Your task to perform on an android device: turn on airplane mode Image 0: 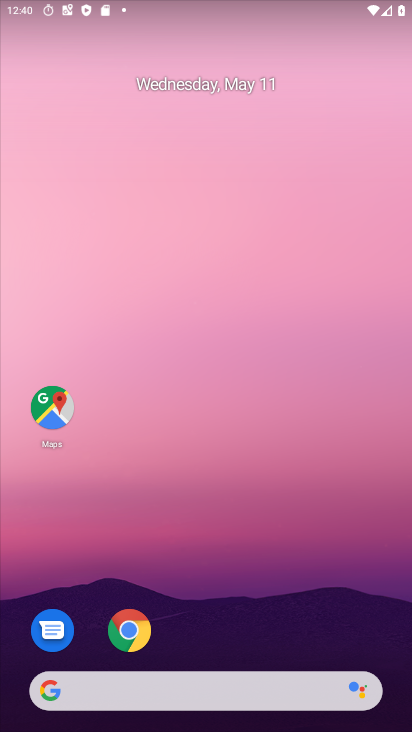
Step 0: drag from (298, 9) to (261, 516)
Your task to perform on an android device: turn on airplane mode Image 1: 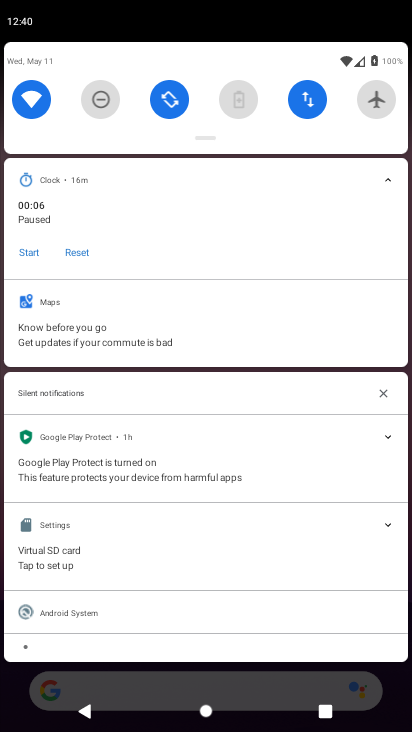
Step 1: click (385, 93)
Your task to perform on an android device: turn on airplane mode Image 2: 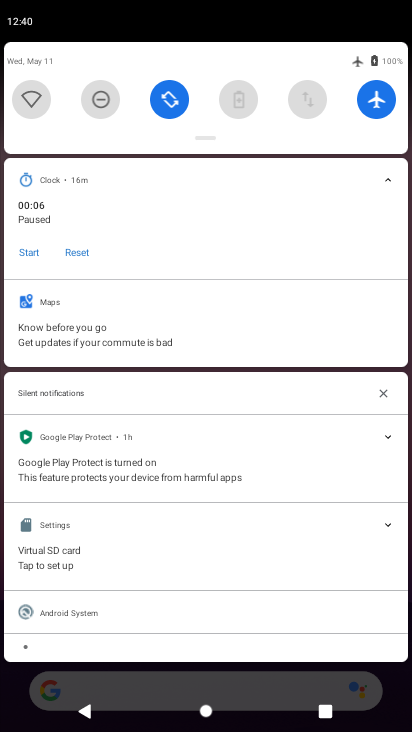
Step 2: task complete